Your task to perform on an android device: Go to Wikipedia Image 0: 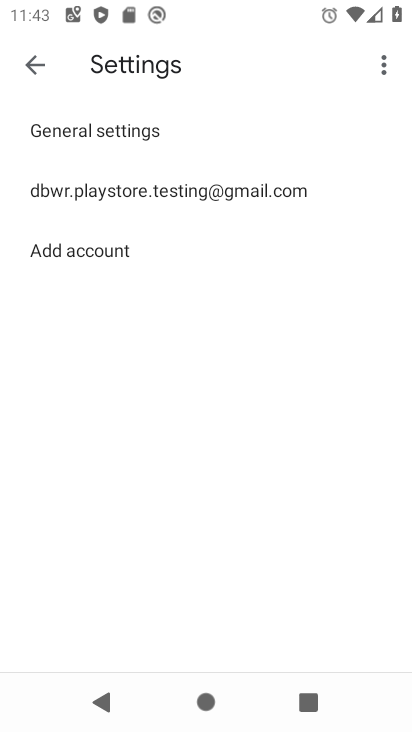
Step 0: press home button
Your task to perform on an android device: Go to Wikipedia Image 1: 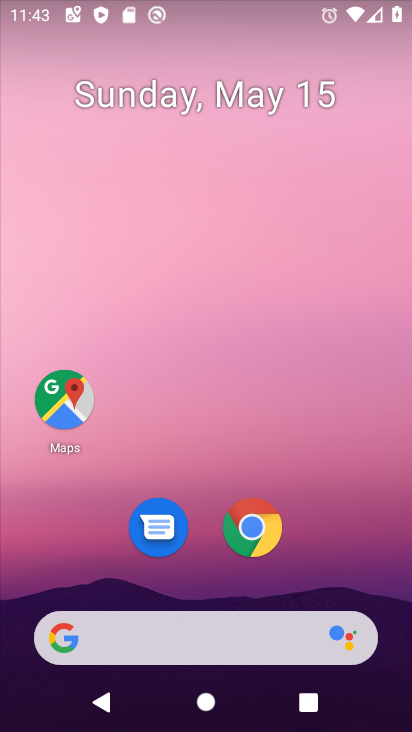
Step 1: click (264, 514)
Your task to perform on an android device: Go to Wikipedia Image 2: 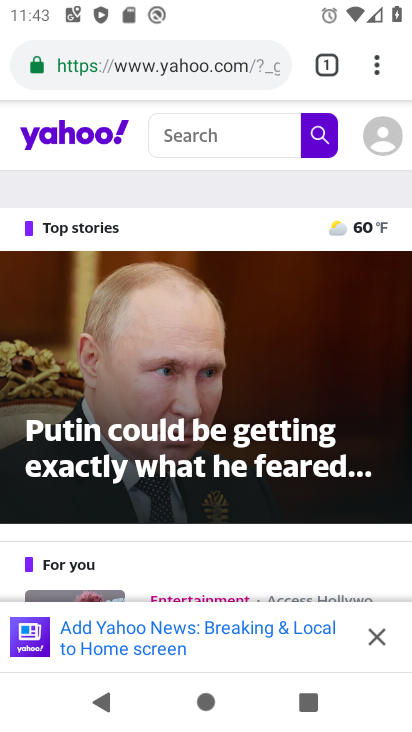
Step 2: click (205, 82)
Your task to perform on an android device: Go to Wikipedia Image 3: 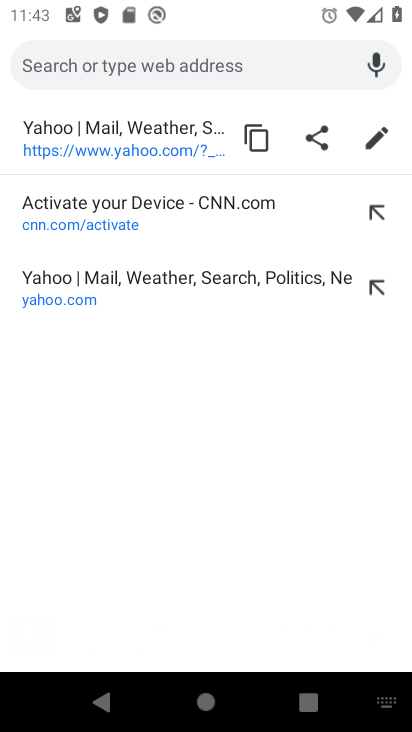
Step 3: type "wikipedia"
Your task to perform on an android device: Go to Wikipedia Image 4: 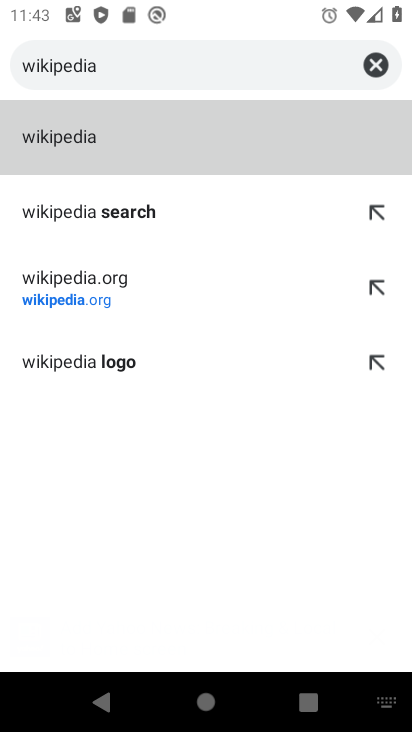
Step 4: click (114, 269)
Your task to perform on an android device: Go to Wikipedia Image 5: 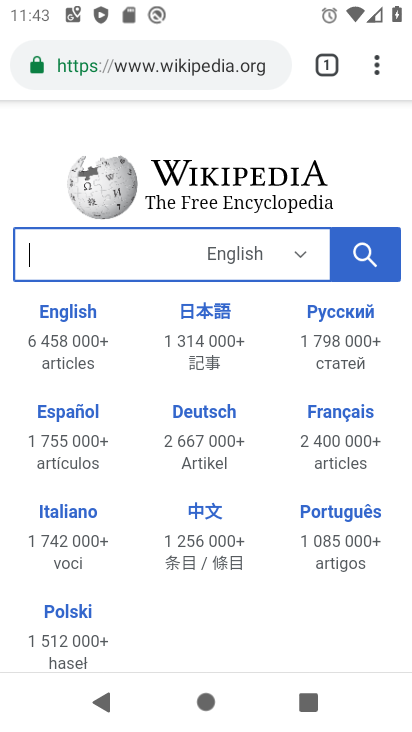
Step 5: task complete